Your task to perform on an android device: turn off notifications in google photos Image 0: 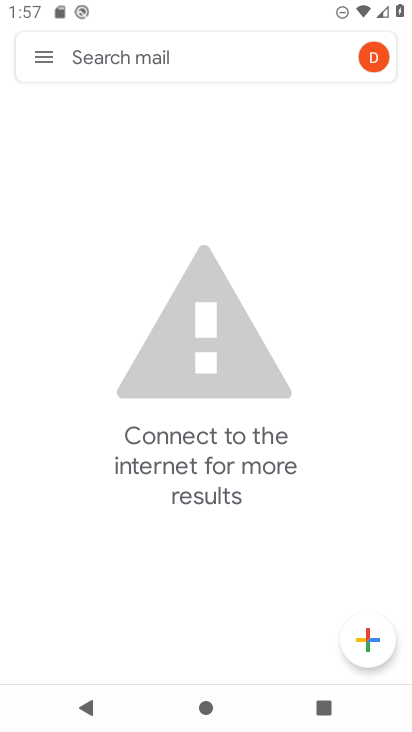
Step 0: press home button
Your task to perform on an android device: turn off notifications in google photos Image 1: 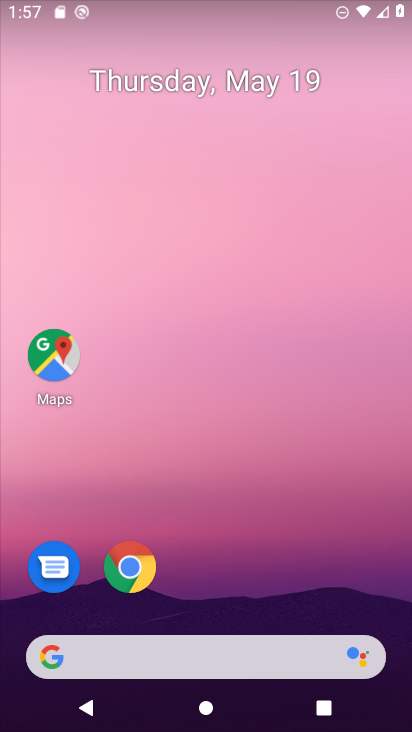
Step 1: drag from (236, 525) to (259, 111)
Your task to perform on an android device: turn off notifications in google photos Image 2: 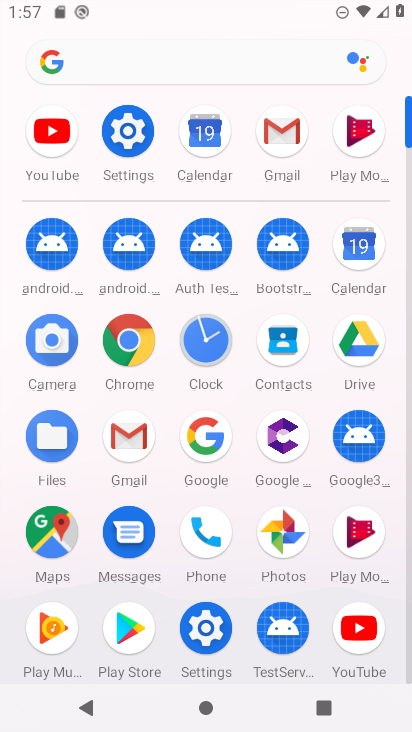
Step 2: click (144, 132)
Your task to perform on an android device: turn off notifications in google photos Image 3: 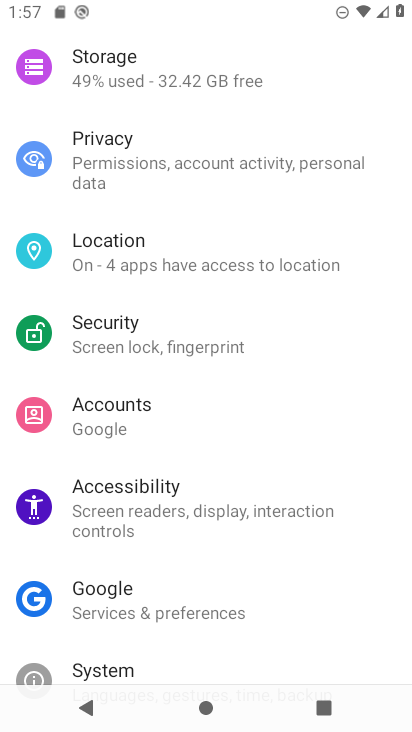
Step 3: drag from (210, 211) to (239, 548)
Your task to perform on an android device: turn off notifications in google photos Image 4: 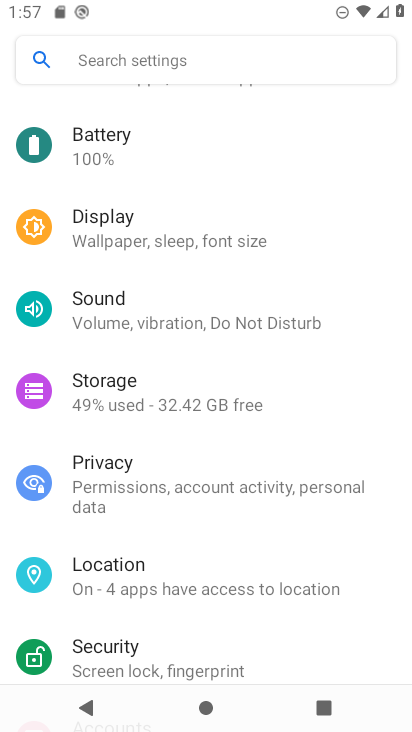
Step 4: drag from (223, 237) to (222, 511)
Your task to perform on an android device: turn off notifications in google photos Image 5: 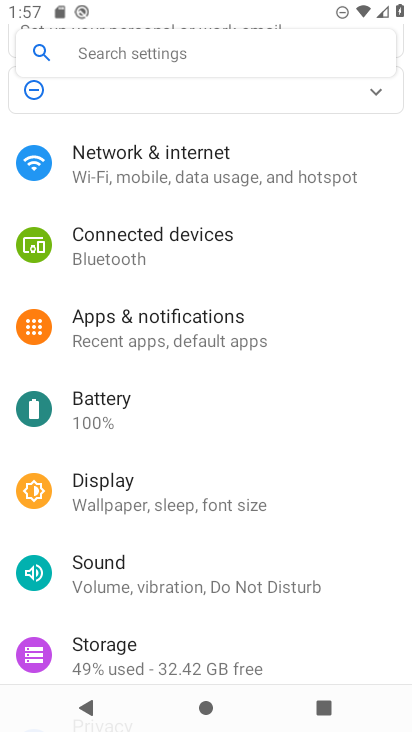
Step 5: click (214, 320)
Your task to perform on an android device: turn off notifications in google photos Image 6: 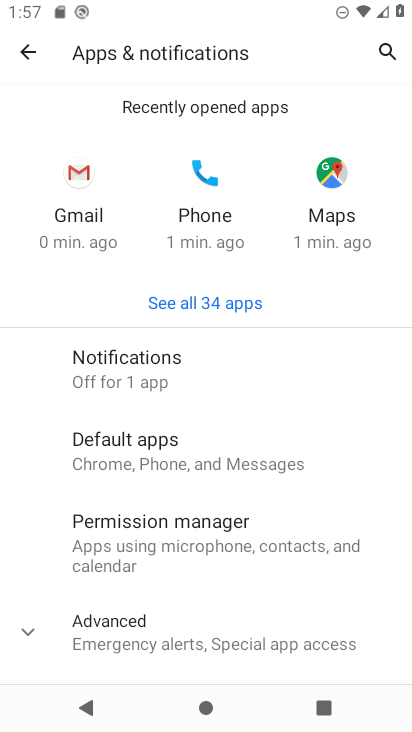
Step 6: click (233, 294)
Your task to perform on an android device: turn off notifications in google photos Image 7: 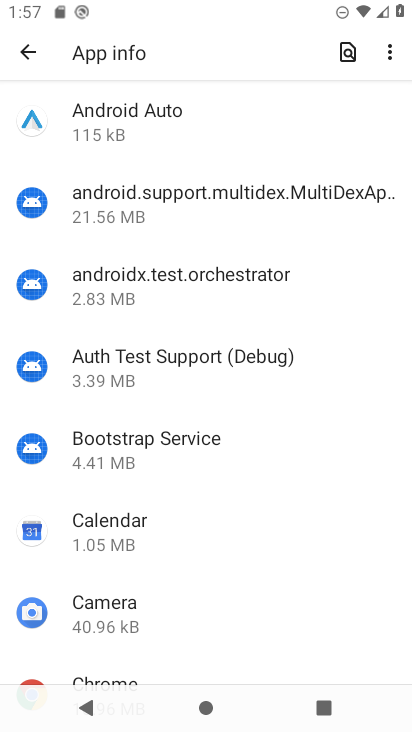
Step 7: drag from (270, 524) to (286, 229)
Your task to perform on an android device: turn off notifications in google photos Image 8: 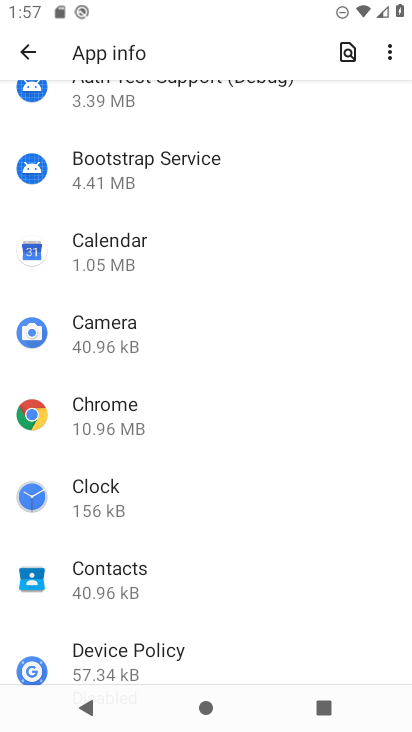
Step 8: drag from (233, 521) to (236, 122)
Your task to perform on an android device: turn off notifications in google photos Image 9: 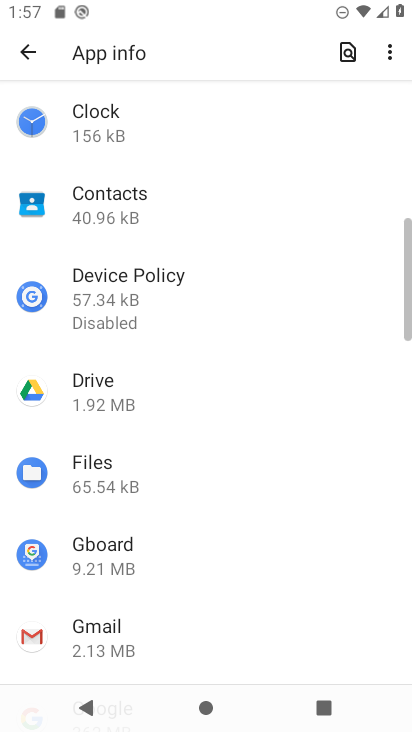
Step 9: drag from (194, 526) to (205, 111)
Your task to perform on an android device: turn off notifications in google photos Image 10: 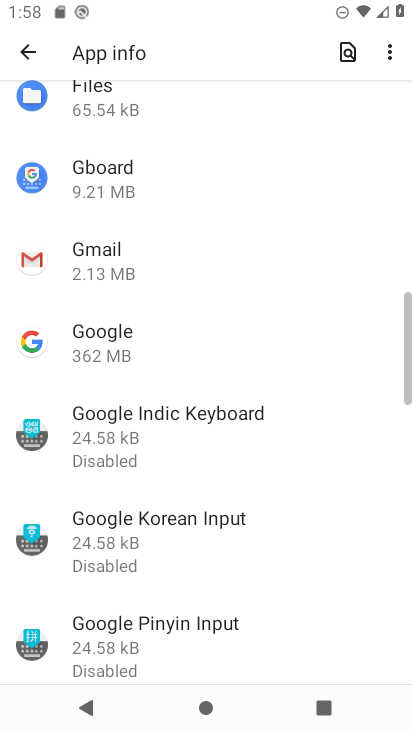
Step 10: drag from (213, 572) to (239, 100)
Your task to perform on an android device: turn off notifications in google photos Image 11: 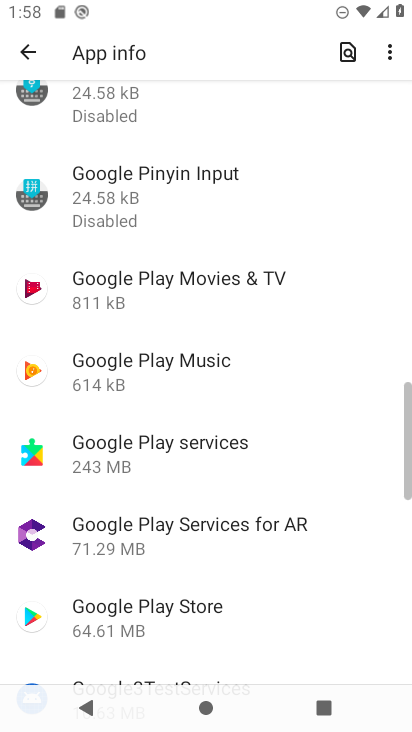
Step 11: drag from (233, 594) to (263, 155)
Your task to perform on an android device: turn off notifications in google photos Image 12: 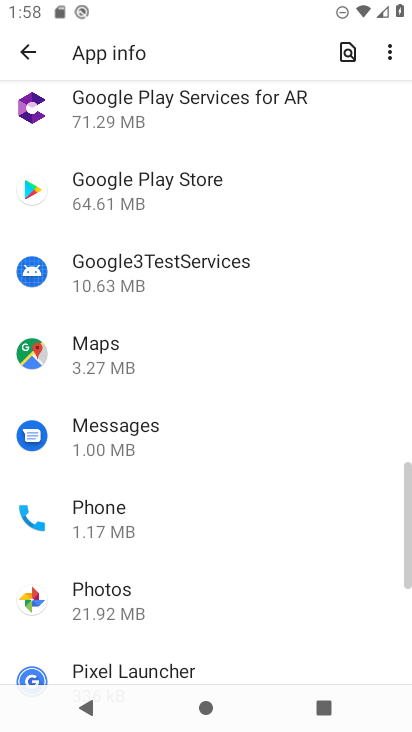
Step 12: click (181, 609)
Your task to perform on an android device: turn off notifications in google photos Image 13: 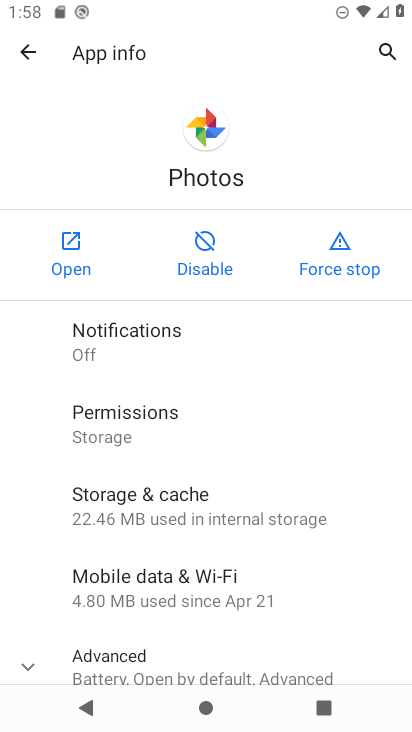
Step 13: click (181, 335)
Your task to perform on an android device: turn off notifications in google photos Image 14: 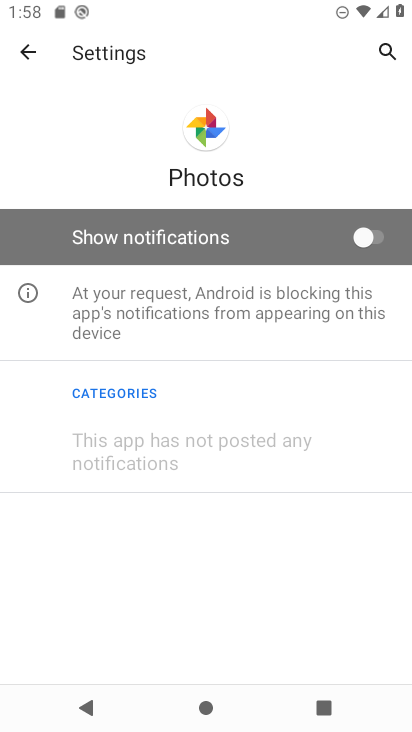
Step 14: task complete